Your task to perform on an android device: Open the phone app and click the voicemail tab. Image 0: 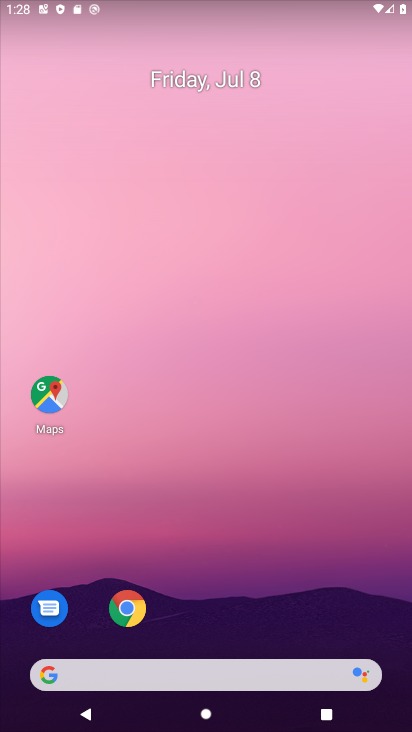
Step 0: drag from (242, 638) to (290, 121)
Your task to perform on an android device: Open the phone app and click the voicemail tab. Image 1: 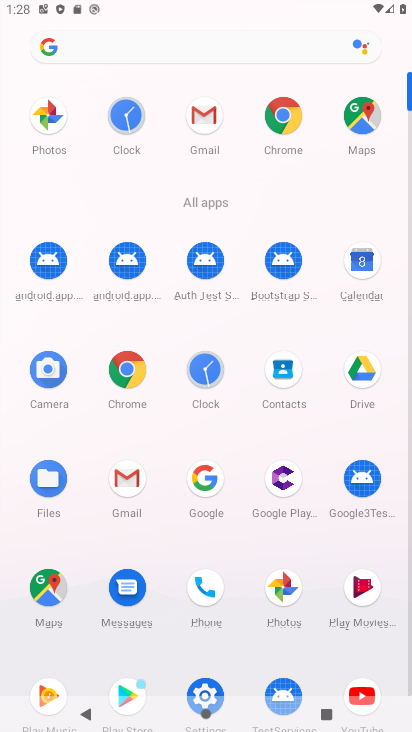
Step 1: click (217, 588)
Your task to perform on an android device: Open the phone app and click the voicemail tab. Image 2: 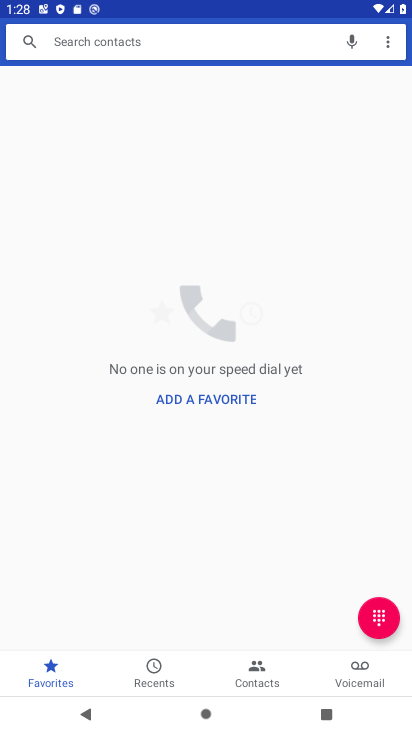
Step 2: click (374, 678)
Your task to perform on an android device: Open the phone app and click the voicemail tab. Image 3: 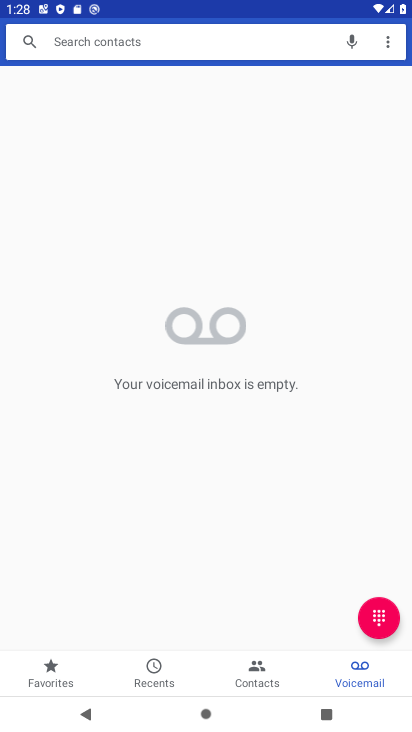
Step 3: task complete